Your task to perform on an android device: toggle javascript in the chrome app Image 0: 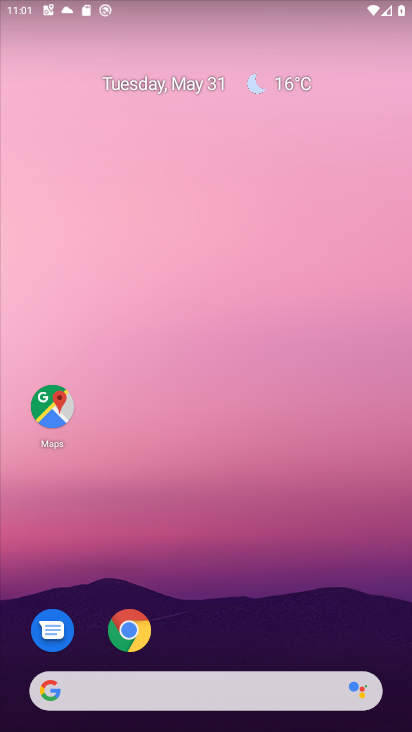
Step 0: click (130, 628)
Your task to perform on an android device: toggle javascript in the chrome app Image 1: 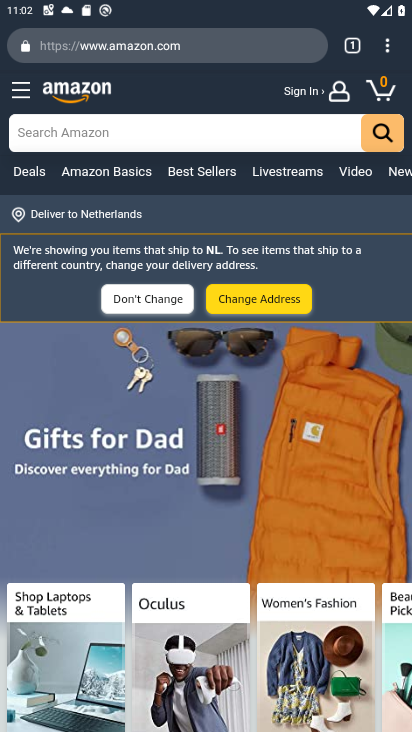
Step 1: click (391, 37)
Your task to perform on an android device: toggle javascript in the chrome app Image 2: 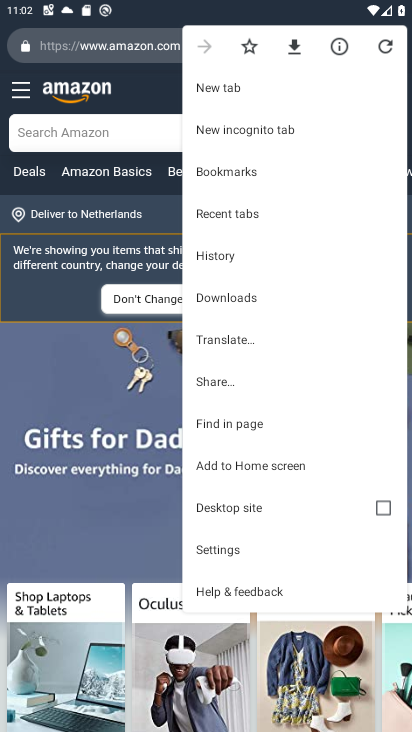
Step 2: click (238, 550)
Your task to perform on an android device: toggle javascript in the chrome app Image 3: 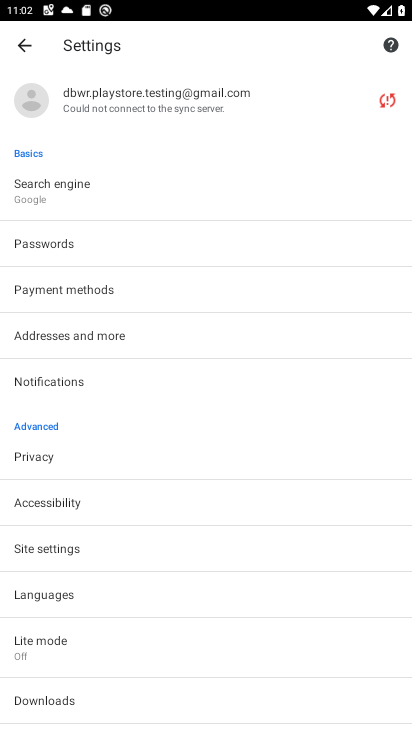
Step 3: click (74, 554)
Your task to perform on an android device: toggle javascript in the chrome app Image 4: 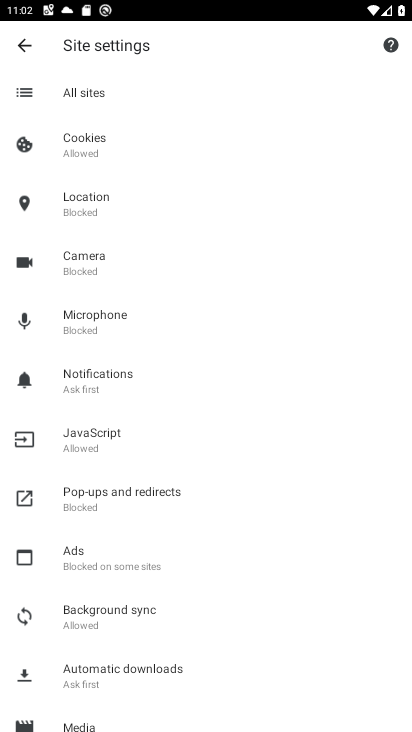
Step 4: click (90, 454)
Your task to perform on an android device: toggle javascript in the chrome app Image 5: 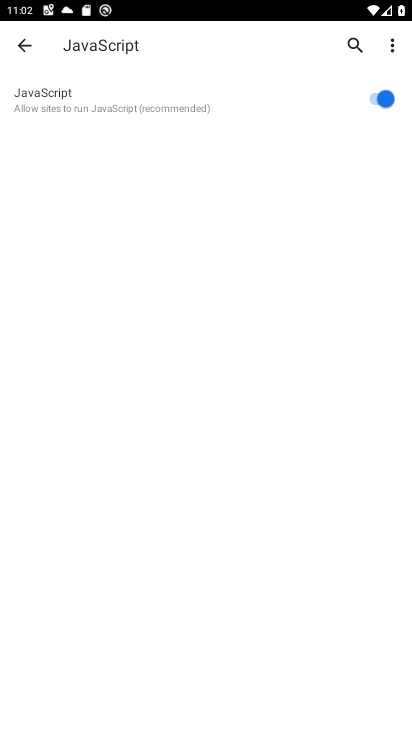
Step 5: click (383, 102)
Your task to perform on an android device: toggle javascript in the chrome app Image 6: 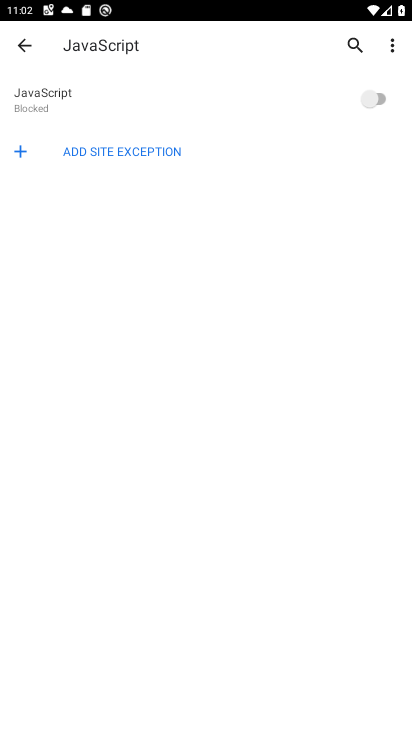
Step 6: task complete